Your task to perform on an android device: Turn off the flashlight Image 0: 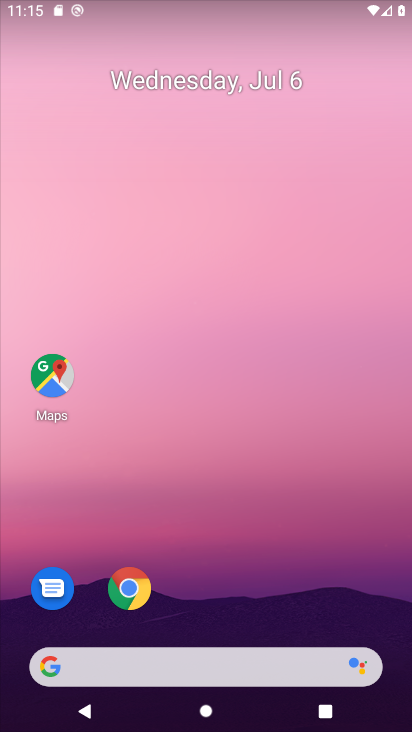
Step 0: drag from (55, 658) to (373, 12)
Your task to perform on an android device: Turn off the flashlight Image 1: 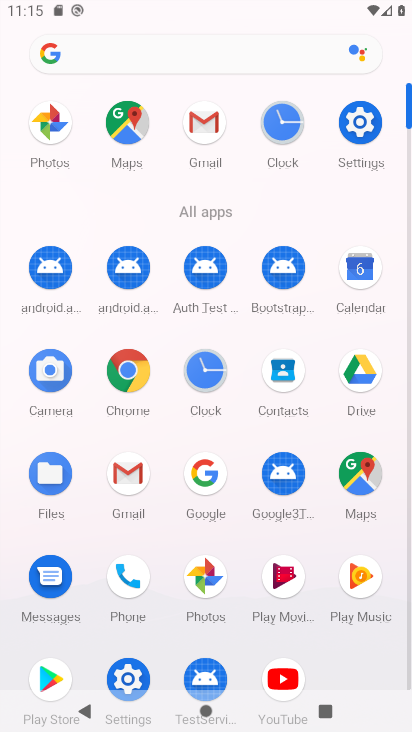
Step 1: drag from (331, 678) to (331, 157)
Your task to perform on an android device: Turn off the flashlight Image 2: 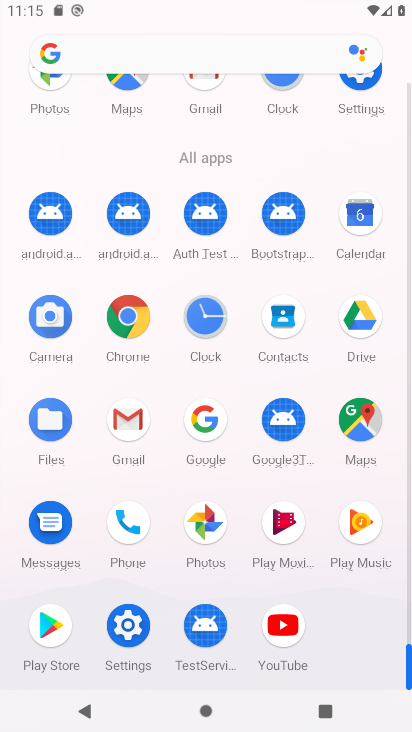
Step 2: click (117, 639)
Your task to perform on an android device: Turn off the flashlight Image 3: 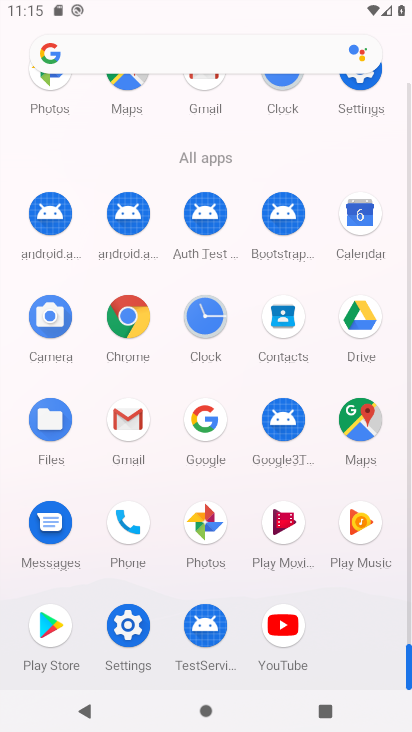
Step 3: click (125, 626)
Your task to perform on an android device: Turn off the flashlight Image 4: 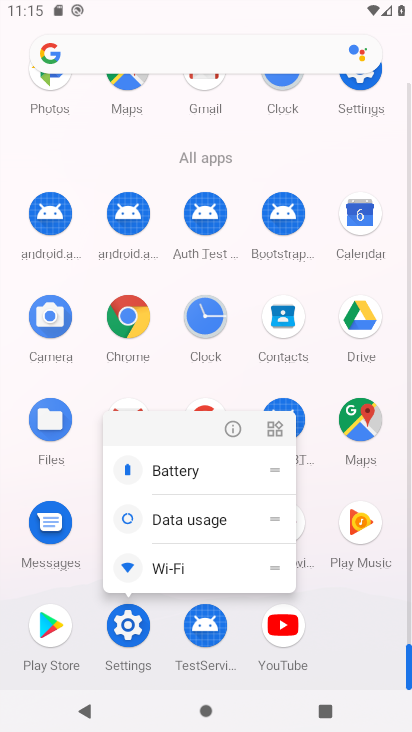
Step 4: click (133, 616)
Your task to perform on an android device: Turn off the flashlight Image 5: 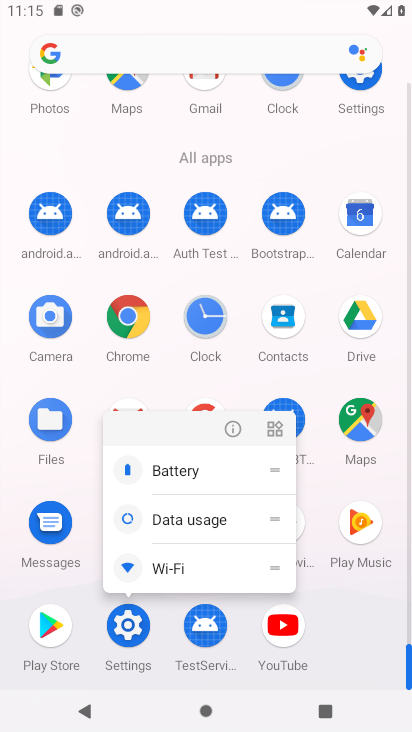
Step 5: click (132, 626)
Your task to perform on an android device: Turn off the flashlight Image 6: 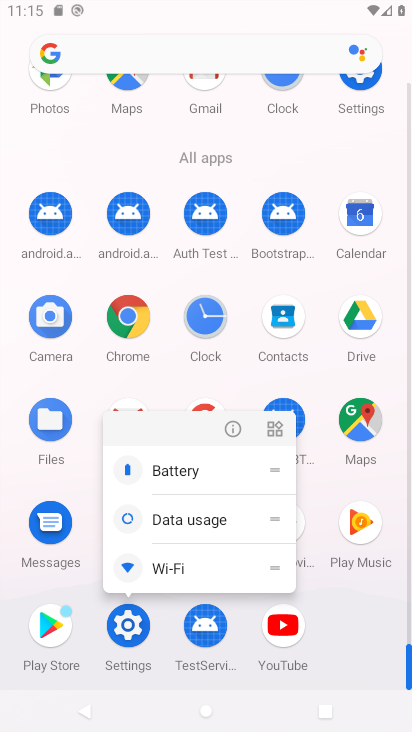
Step 6: click (111, 623)
Your task to perform on an android device: Turn off the flashlight Image 7: 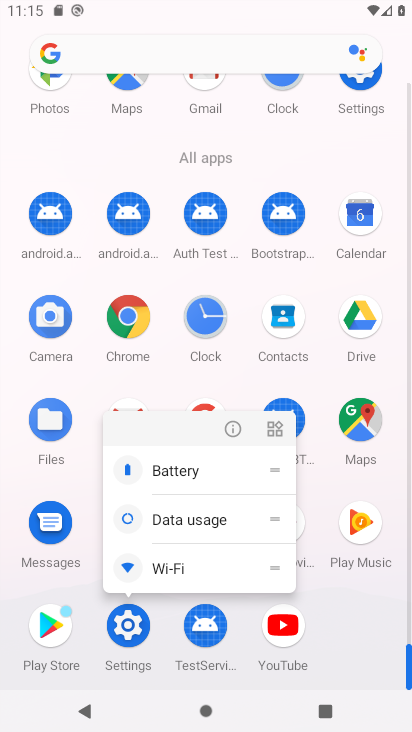
Step 7: click (133, 611)
Your task to perform on an android device: Turn off the flashlight Image 8: 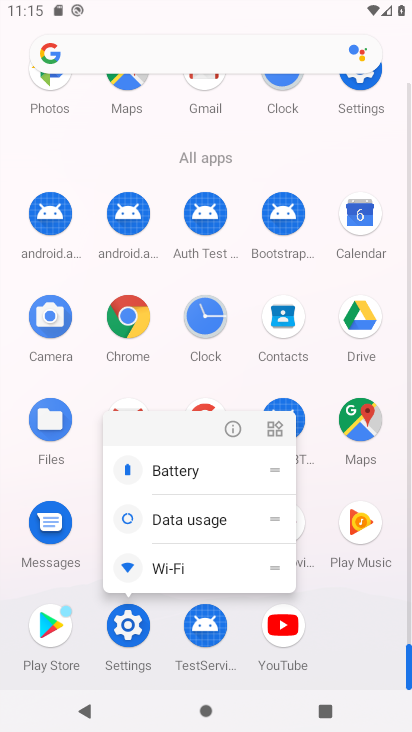
Step 8: click (130, 625)
Your task to perform on an android device: Turn off the flashlight Image 9: 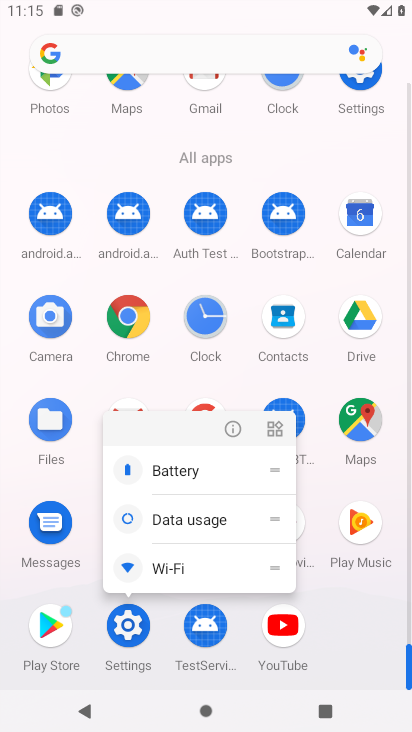
Step 9: click (125, 630)
Your task to perform on an android device: Turn off the flashlight Image 10: 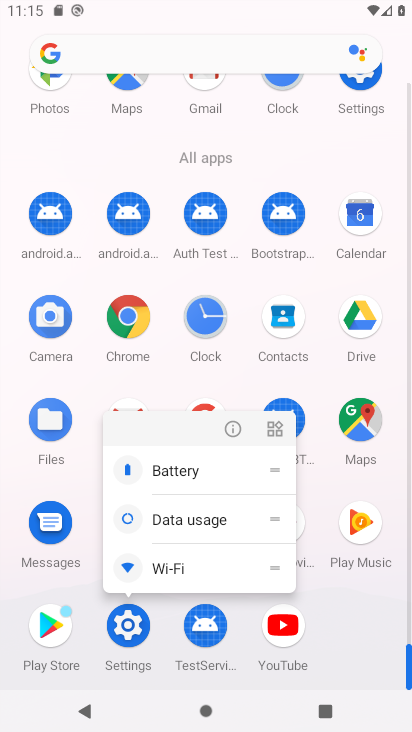
Step 10: click (127, 626)
Your task to perform on an android device: Turn off the flashlight Image 11: 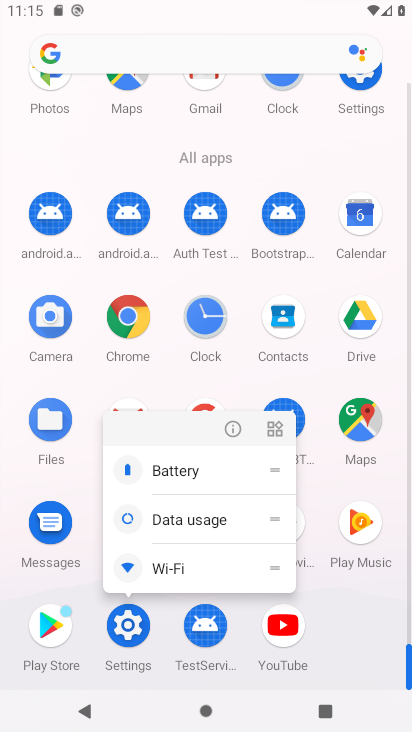
Step 11: click (127, 639)
Your task to perform on an android device: Turn off the flashlight Image 12: 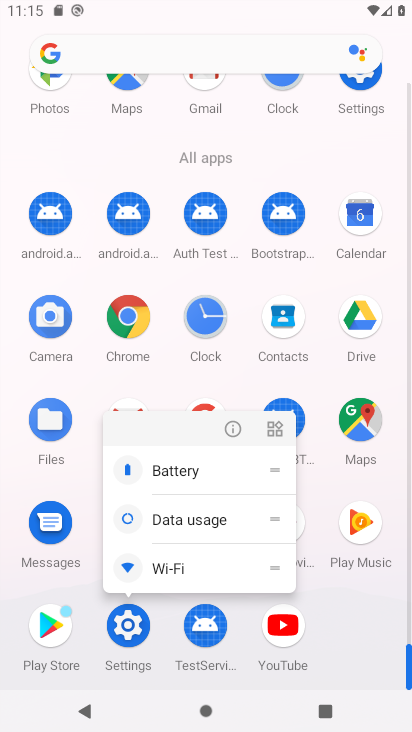
Step 12: click (121, 624)
Your task to perform on an android device: Turn off the flashlight Image 13: 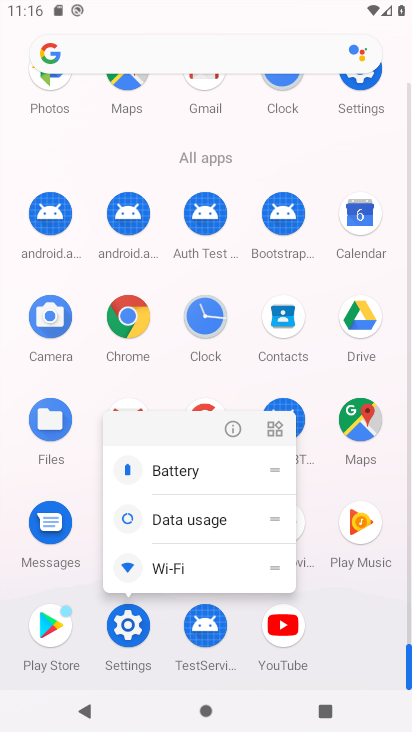
Step 13: task complete